Your task to perform on an android device: Go to Amazon Image 0: 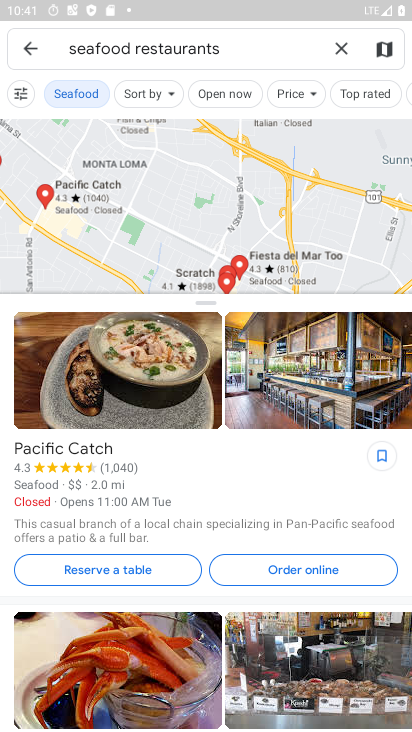
Step 0: press home button
Your task to perform on an android device: Go to Amazon Image 1: 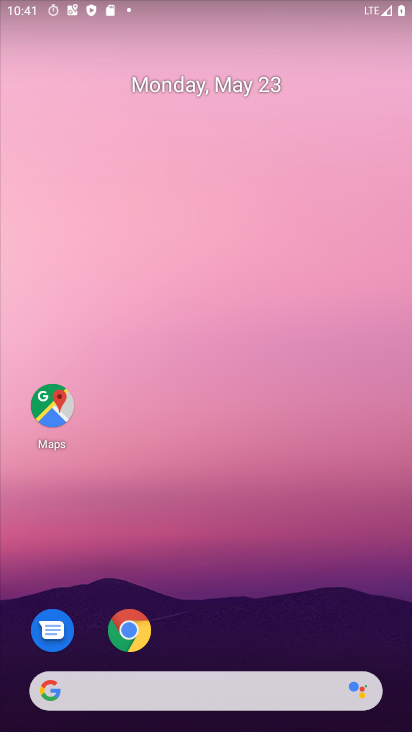
Step 1: click (136, 628)
Your task to perform on an android device: Go to Amazon Image 2: 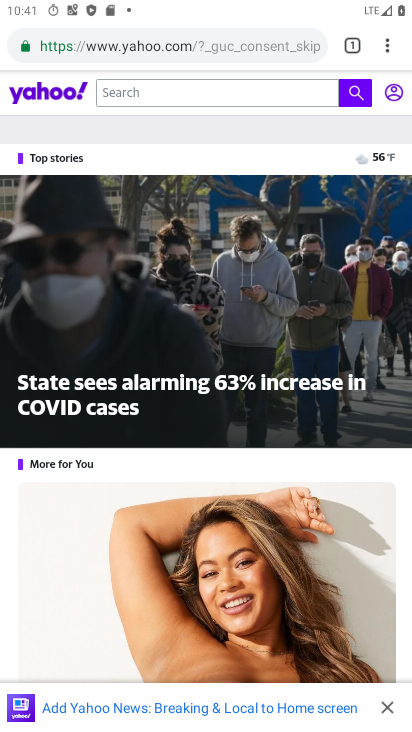
Step 2: click (105, 49)
Your task to perform on an android device: Go to Amazon Image 3: 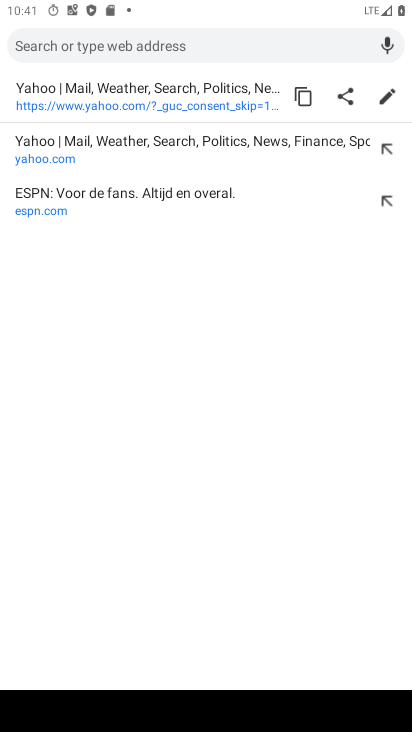
Step 3: type "amazon"
Your task to perform on an android device: Go to Amazon Image 4: 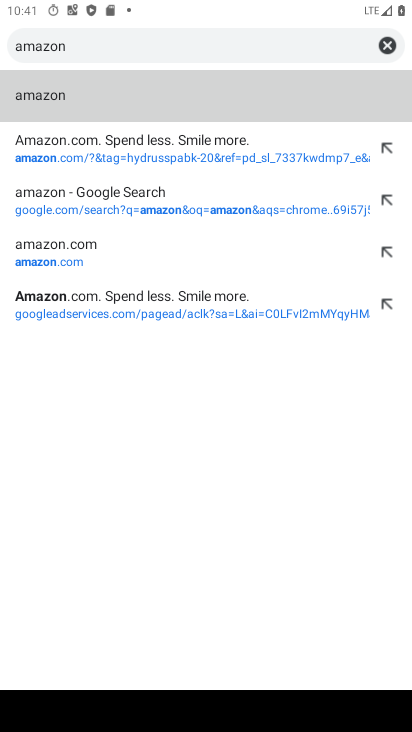
Step 4: click (30, 96)
Your task to perform on an android device: Go to Amazon Image 5: 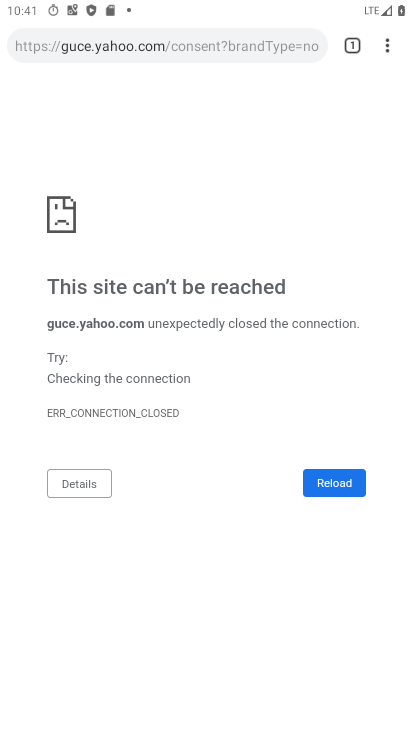
Step 5: click (137, 47)
Your task to perform on an android device: Go to Amazon Image 6: 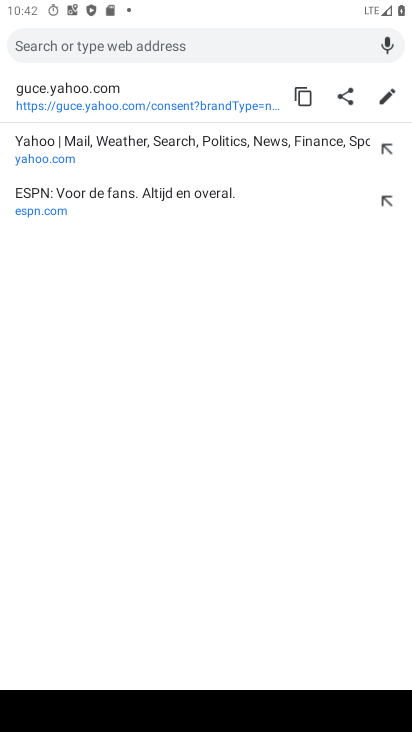
Step 6: type "amazon"
Your task to perform on an android device: Go to Amazon Image 7: 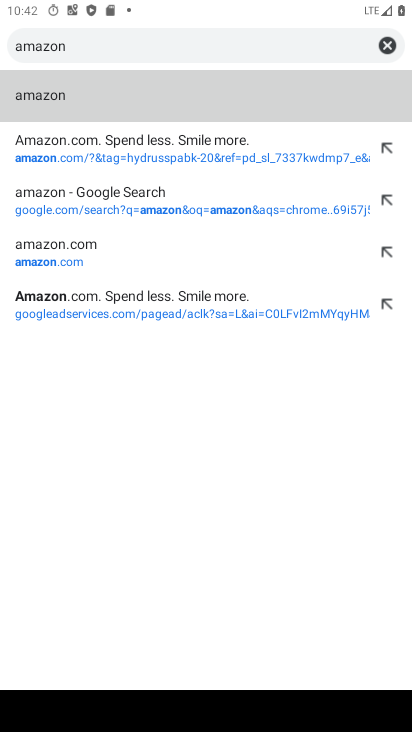
Step 7: click (48, 244)
Your task to perform on an android device: Go to Amazon Image 8: 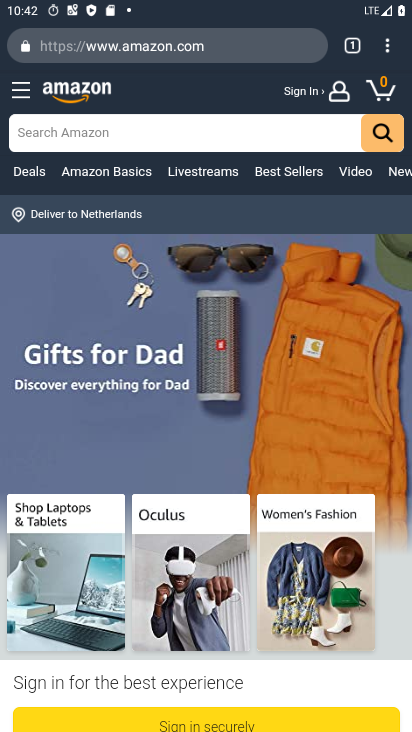
Step 8: task complete